Your task to perform on an android device: star an email in the gmail app Image 0: 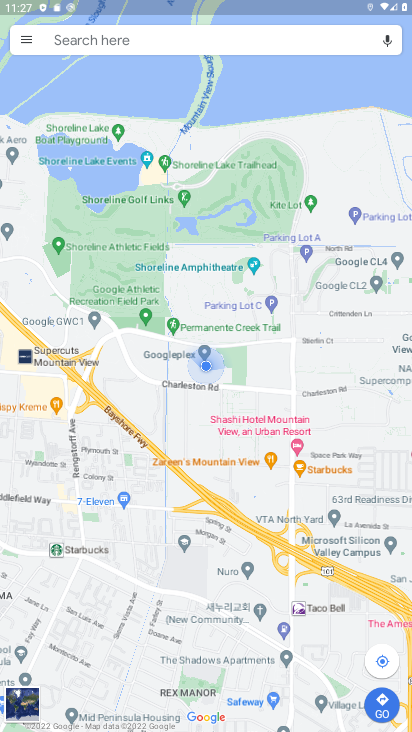
Step 0: press home button
Your task to perform on an android device: star an email in the gmail app Image 1: 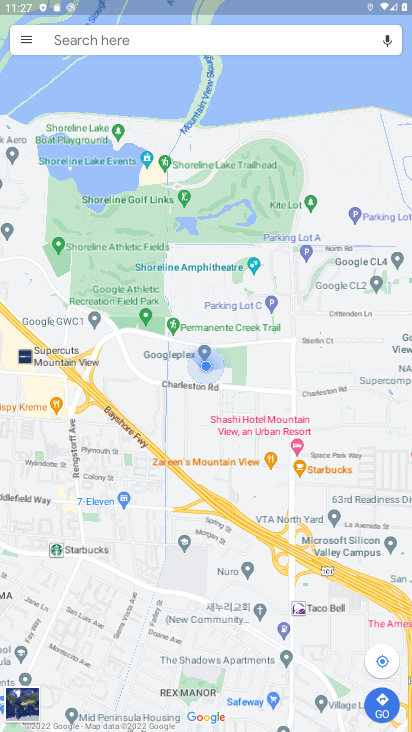
Step 1: drag from (147, 551) to (203, 167)
Your task to perform on an android device: star an email in the gmail app Image 2: 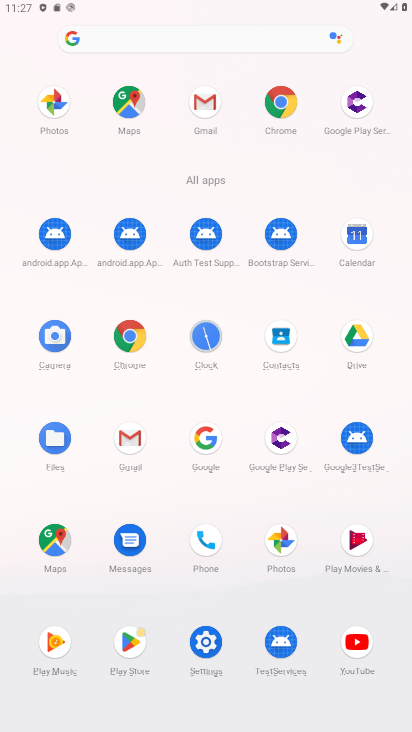
Step 2: click (142, 443)
Your task to perform on an android device: star an email in the gmail app Image 3: 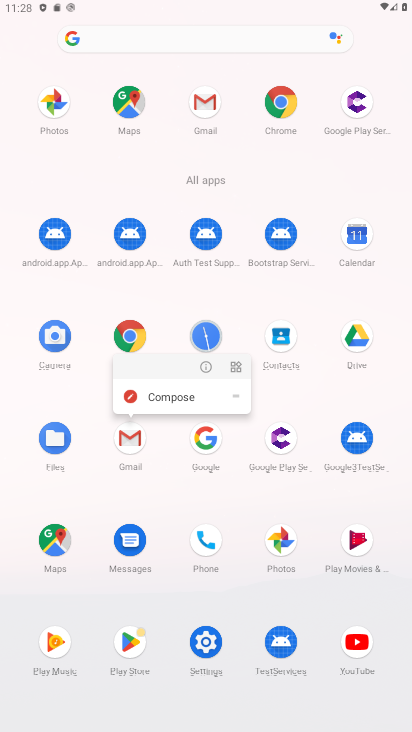
Step 3: click (204, 367)
Your task to perform on an android device: star an email in the gmail app Image 4: 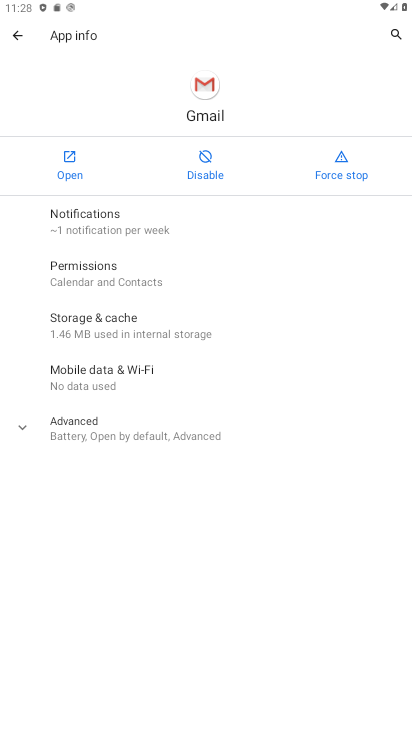
Step 4: click (68, 159)
Your task to perform on an android device: star an email in the gmail app Image 5: 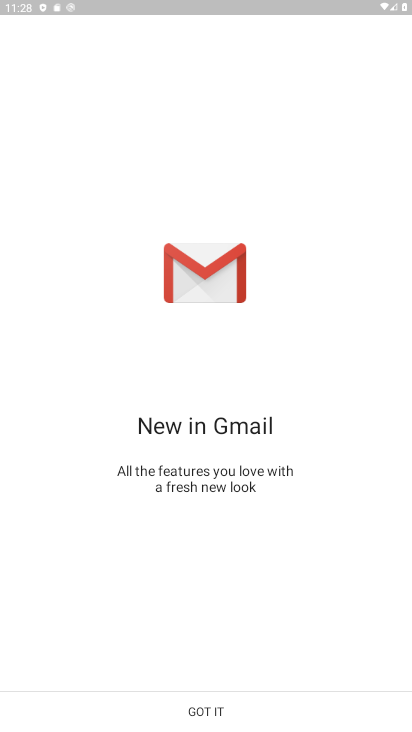
Step 5: click (198, 702)
Your task to perform on an android device: star an email in the gmail app Image 6: 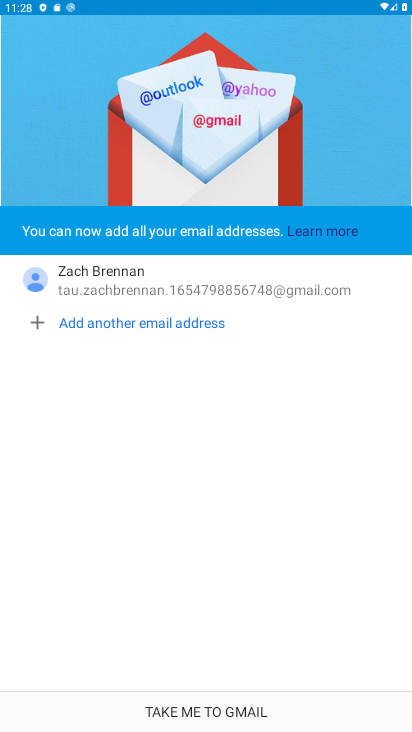
Step 6: click (215, 704)
Your task to perform on an android device: star an email in the gmail app Image 7: 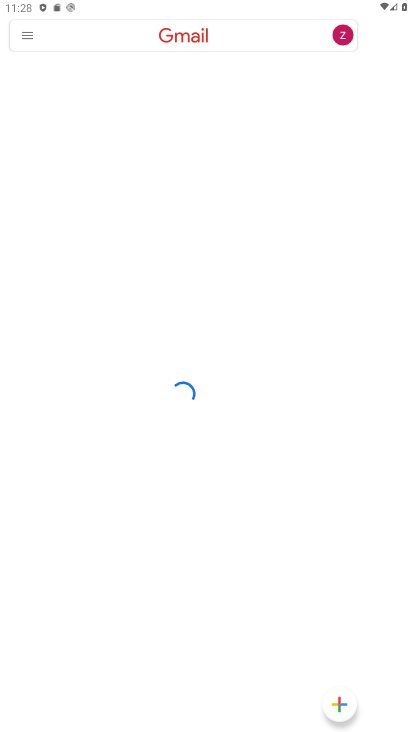
Step 7: click (70, 43)
Your task to perform on an android device: star an email in the gmail app Image 8: 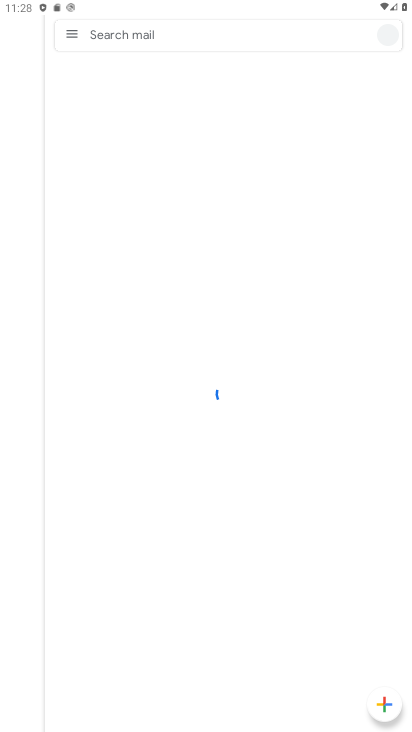
Step 8: click (21, 42)
Your task to perform on an android device: star an email in the gmail app Image 9: 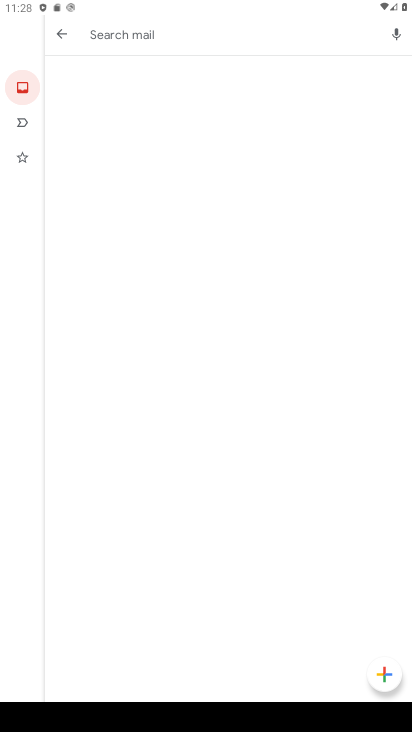
Step 9: click (55, 28)
Your task to perform on an android device: star an email in the gmail app Image 10: 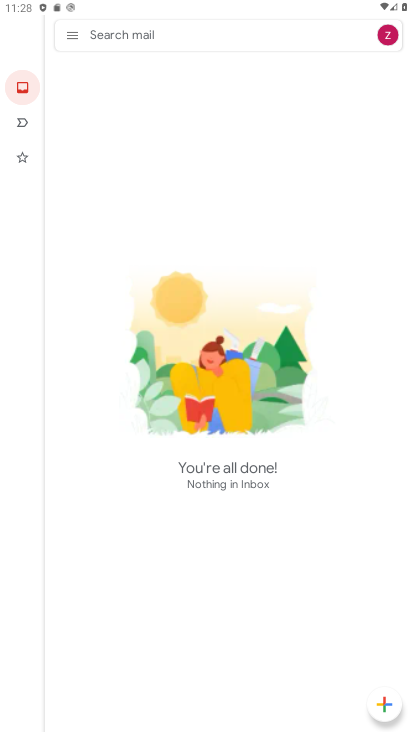
Step 10: click (65, 35)
Your task to perform on an android device: star an email in the gmail app Image 11: 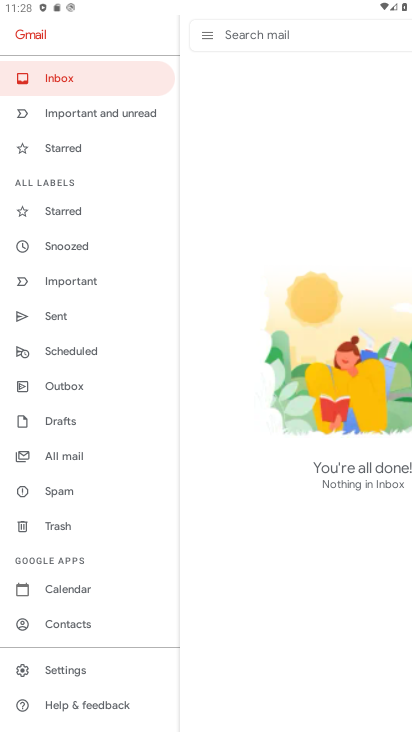
Step 11: click (90, 147)
Your task to perform on an android device: star an email in the gmail app Image 12: 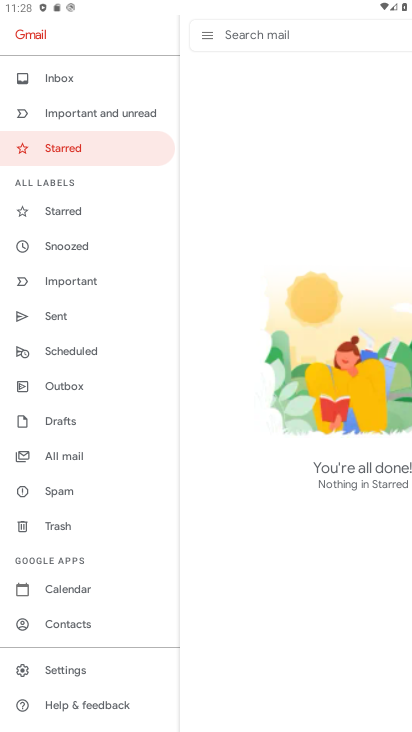
Step 12: click (211, 209)
Your task to perform on an android device: star an email in the gmail app Image 13: 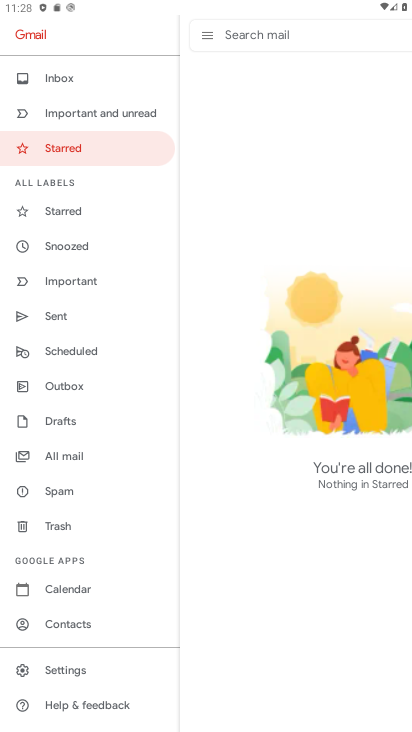
Step 13: task complete